Your task to perform on an android device: What's on my calendar today? Image 0: 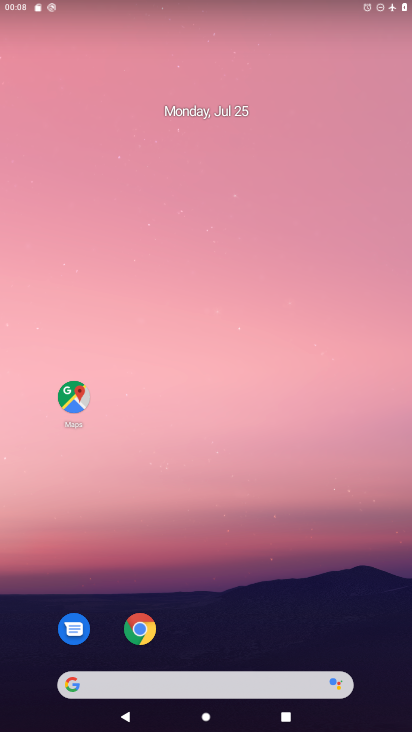
Step 0: drag from (214, 639) to (235, 85)
Your task to perform on an android device: What's on my calendar today? Image 1: 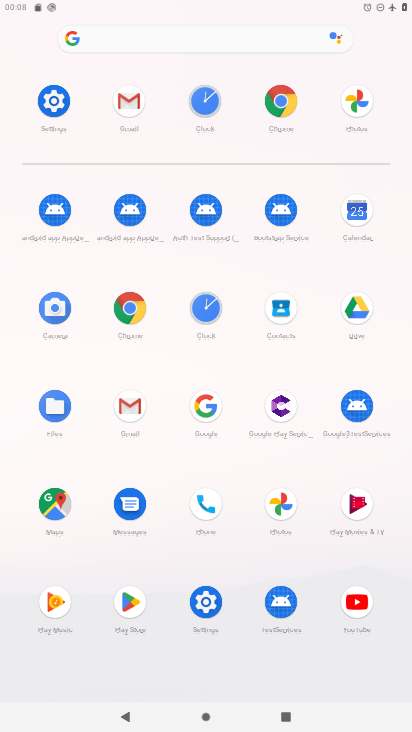
Step 1: click (362, 203)
Your task to perform on an android device: What's on my calendar today? Image 2: 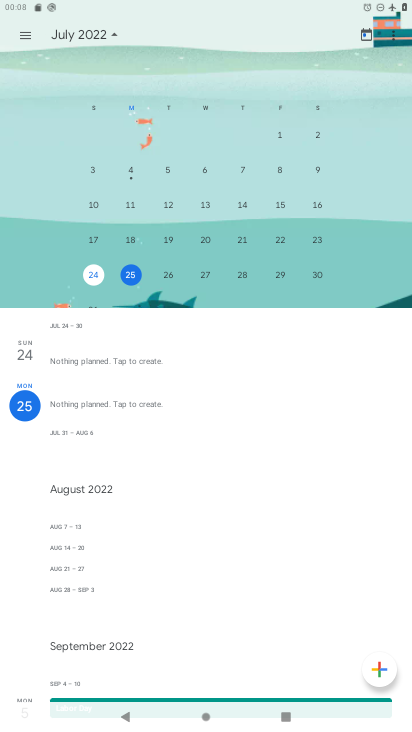
Step 2: click (91, 273)
Your task to perform on an android device: What's on my calendar today? Image 3: 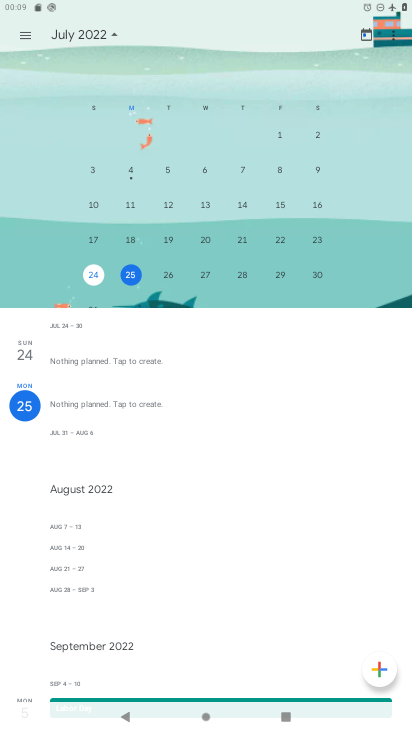
Step 3: click (97, 283)
Your task to perform on an android device: What's on my calendar today? Image 4: 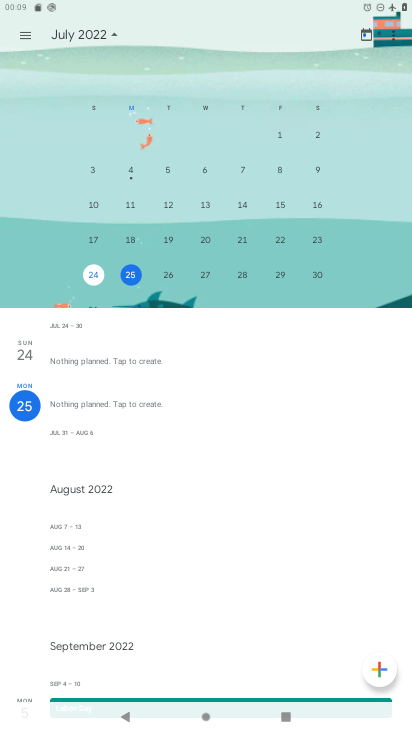
Step 4: click (89, 273)
Your task to perform on an android device: What's on my calendar today? Image 5: 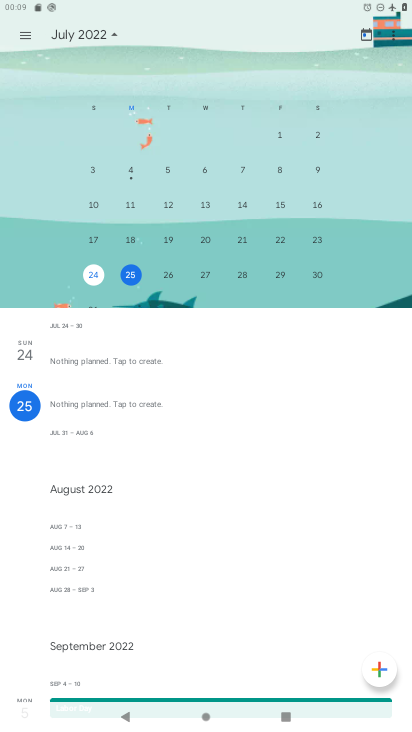
Step 5: click (364, 34)
Your task to perform on an android device: What's on my calendar today? Image 6: 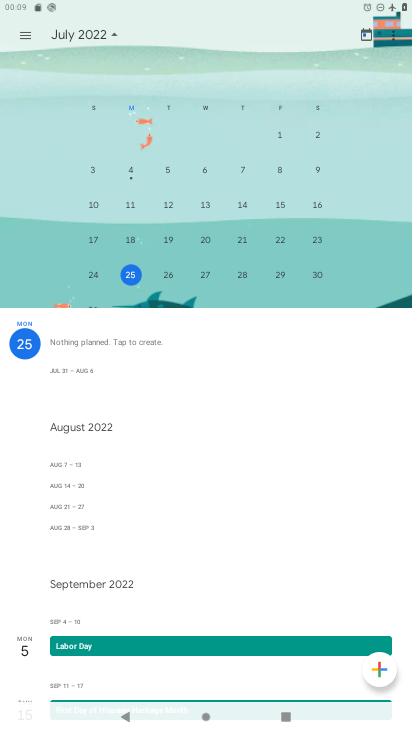
Step 6: task complete